Your task to perform on an android device: What's the weather today? Image 0: 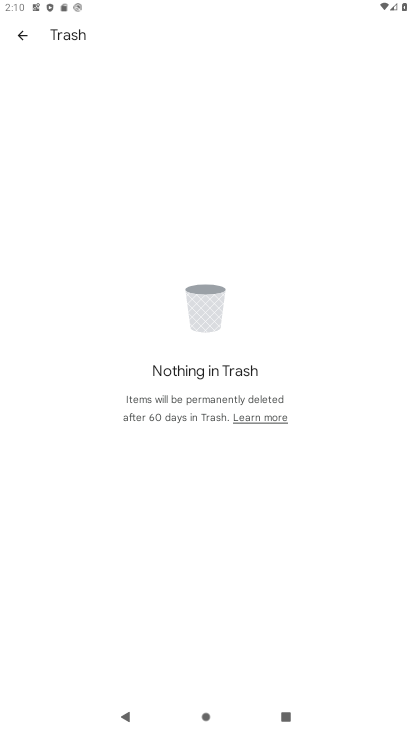
Step 0: drag from (224, 563) to (189, 350)
Your task to perform on an android device: What's the weather today? Image 1: 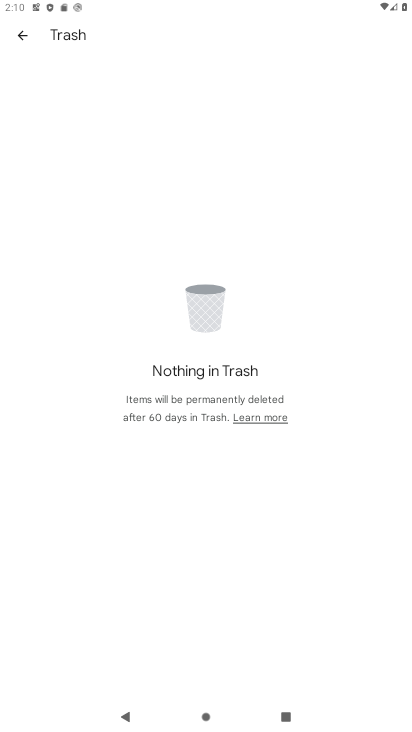
Step 1: press home button
Your task to perform on an android device: What's the weather today? Image 2: 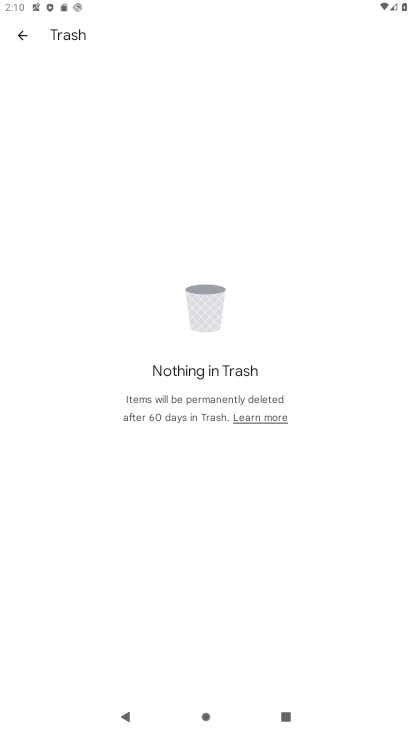
Step 2: drag from (186, 558) to (186, 169)
Your task to perform on an android device: What's the weather today? Image 3: 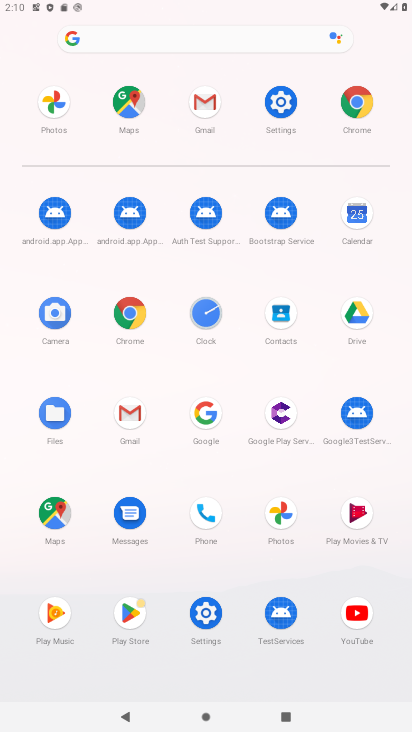
Step 3: click (145, 36)
Your task to perform on an android device: What's the weather today? Image 4: 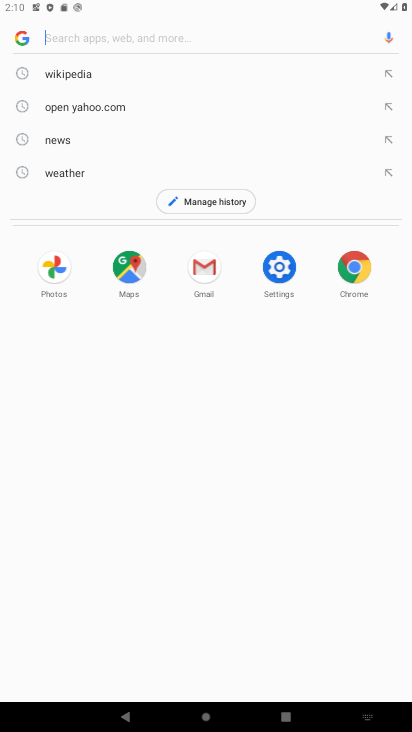
Step 4: type "weather today"
Your task to perform on an android device: What's the weather today? Image 5: 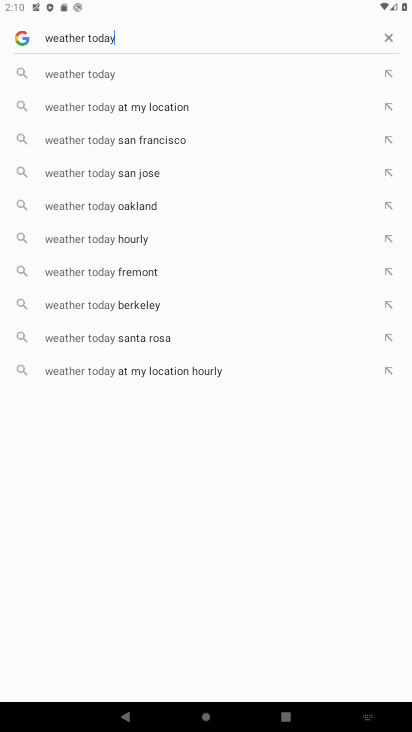
Step 5: click (78, 73)
Your task to perform on an android device: What's the weather today? Image 6: 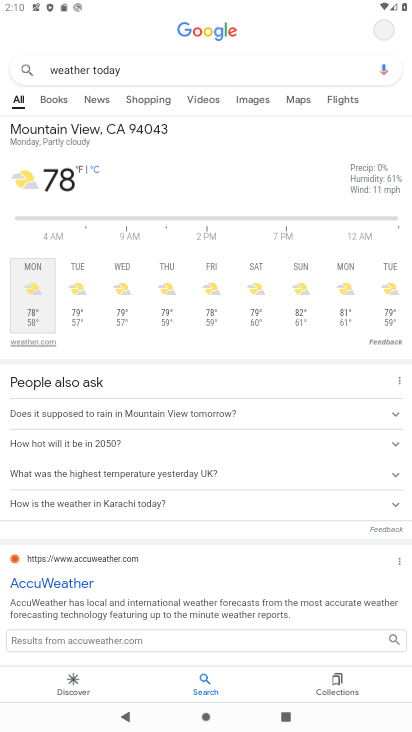
Step 6: task complete